Your task to perform on an android device: toggle data saver in the chrome app Image 0: 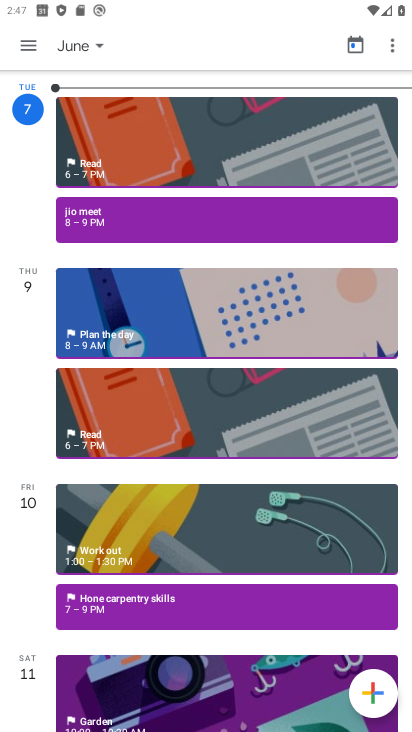
Step 0: press home button
Your task to perform on an android device: toggle data saver in the chrome app Image 1: 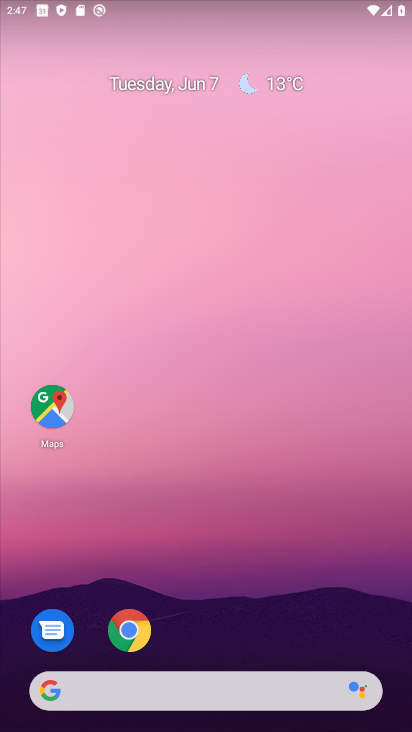
Step 1: click (136, 645)
Your task to perform on an android device: toggle data saver in the chrome app Image 2: 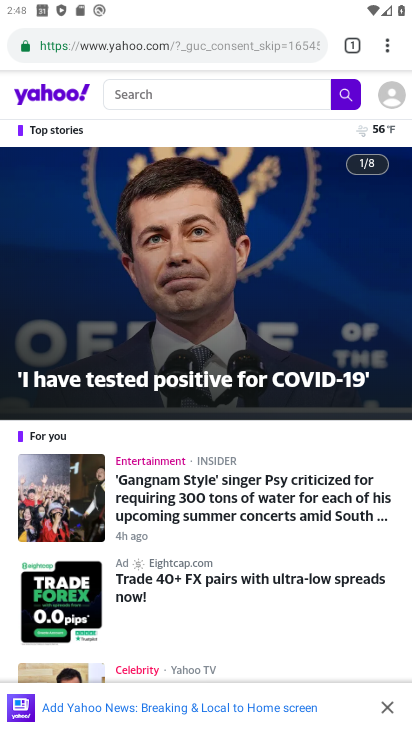
Step 2: drag from (384, 44) to (248, 545)
Your task to perform on an android device: toggle data saver in the chrome app Image 3: 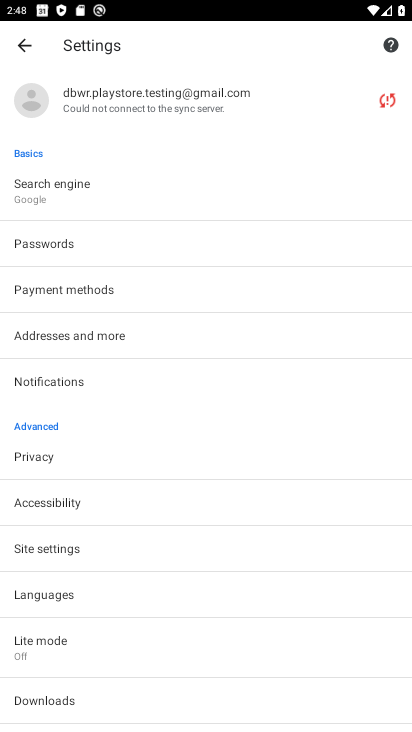
Step 3: click (73, 645)
Your task to perform on an android device: toggle data saver in the chrome app Image 4: 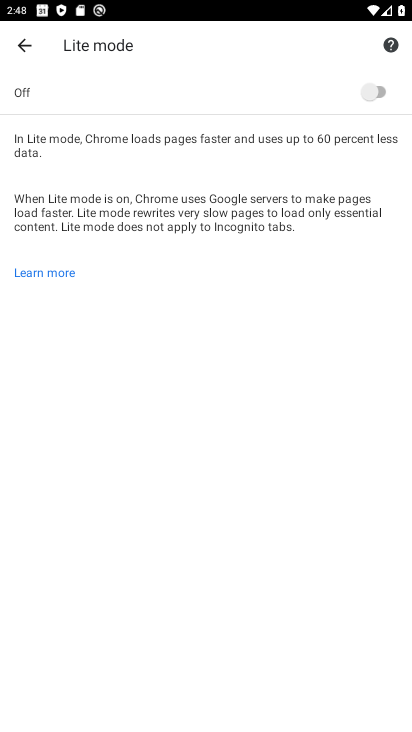
Step 4: click (383, 90)
Your task to perform on an android device: toggle data saver in the chrome app Image 5: 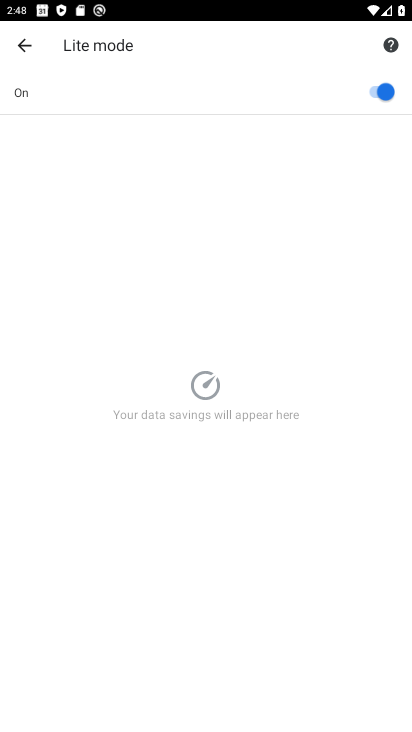
Step 5: task complete